Your task to perform on an android device: Go to Amazon Image 0: 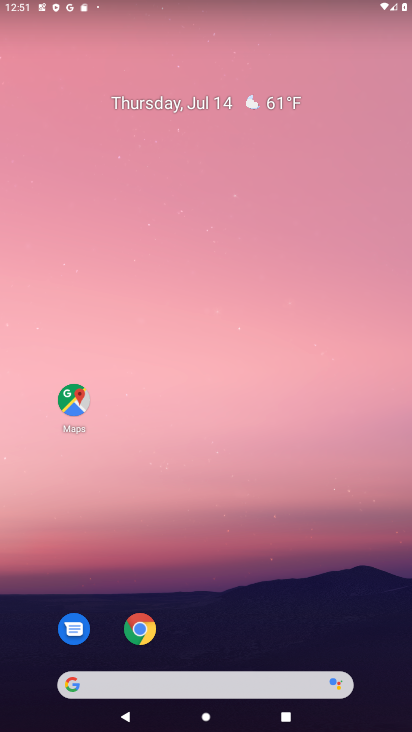
Step 0: click (149, 627)
Your task to perform on an android device: Go to Amazon Image 1: 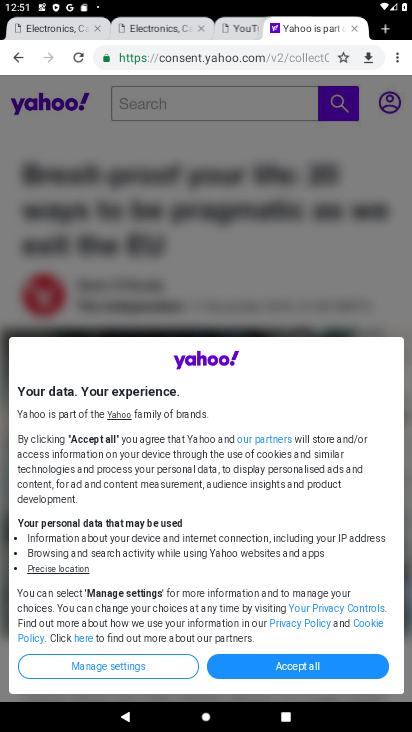
Step 1: click (383, 34)
Your task to perform on an android device: Go to Amazon Image 2: 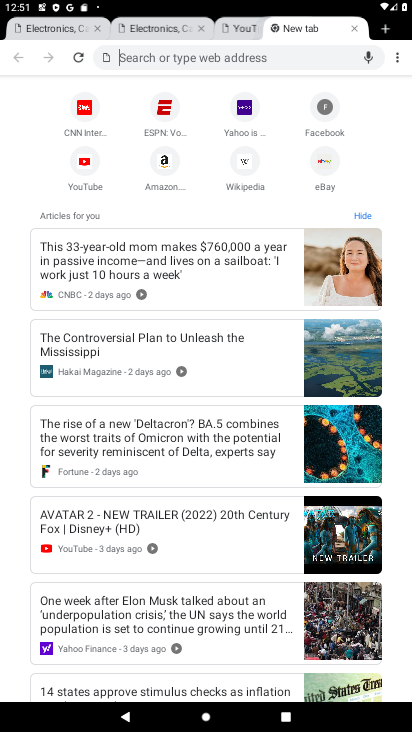
Step 2: click (170, 167)
Your task to perform on an android device: Go to Amazon Image 3: 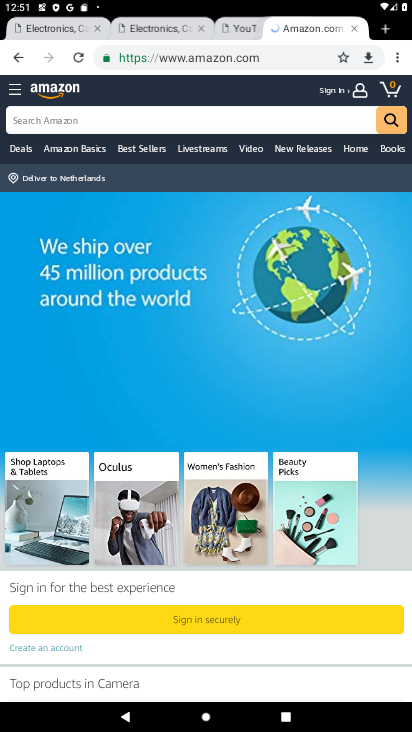
Step 3: task complete